Your task to perform on an android device: Open Chrome and go to the settings page Image 0: 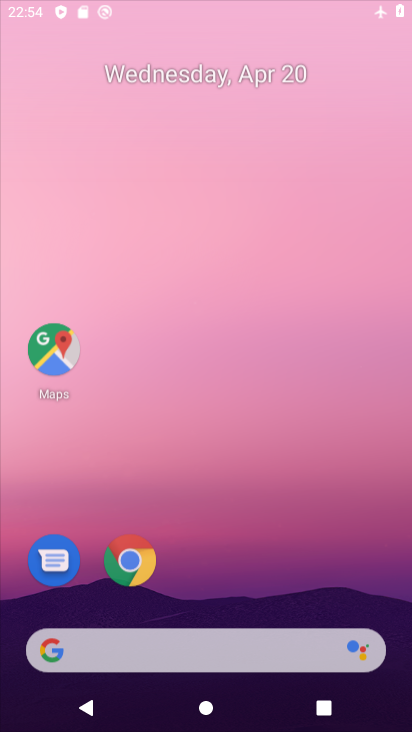
Step 0: click (238, 250)
Your task to perform on an android device: Open Chrome and go to the settings page Image 1: 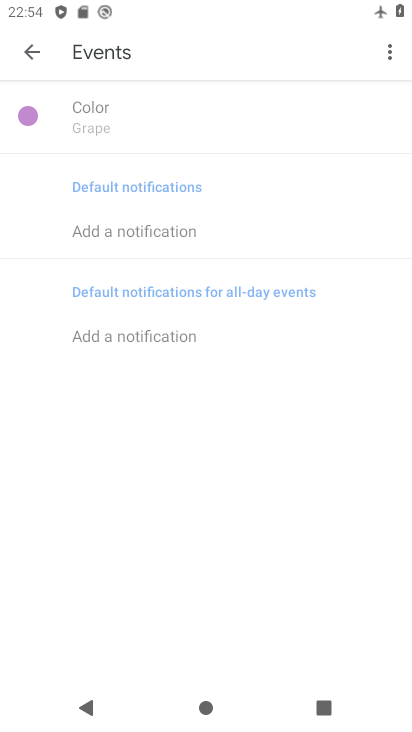
Step 1: drag from (235, 555) to (221, 240)
Your task to perform on an android device: Open Chrome and go to the settings page Image 2: 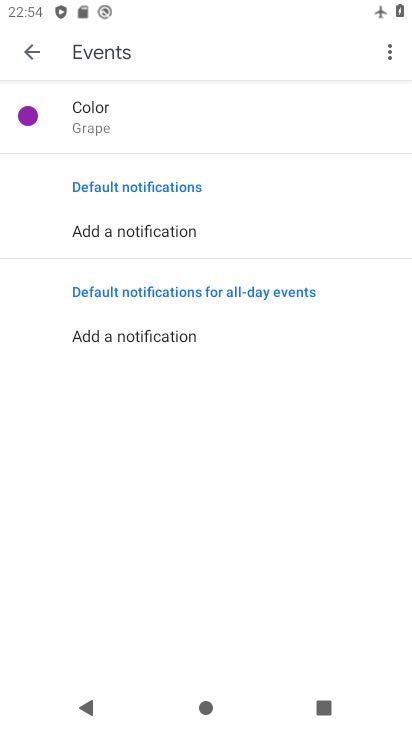
Step 2: press home button
Your task to perform on an android device: Open Chrome and go to the settings page Image 3: 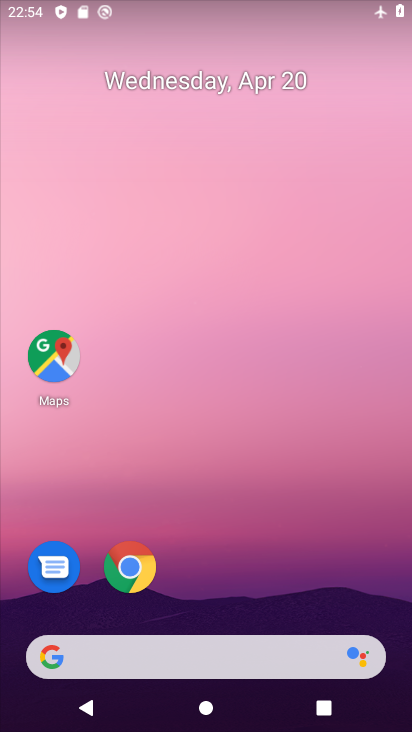
Step 3: drag from (247, 635) to (245, 288)
Your task to perform on an android device: Open Chrome and go to the settings page Image 4: 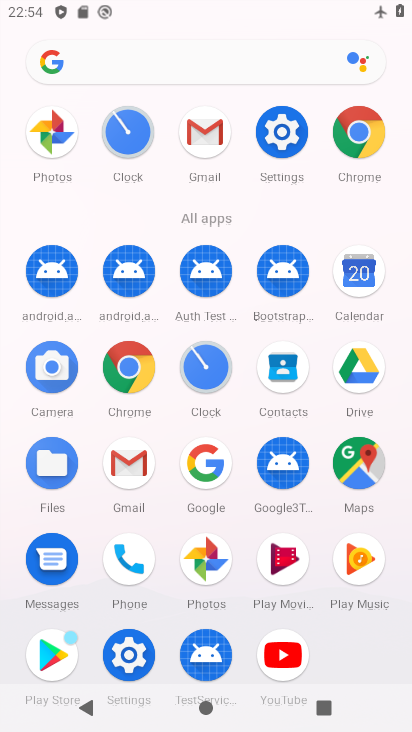
Step 4: click (363, 139)
Your task to perform on an android device: Open Chrome and go to the settings page Image 5: 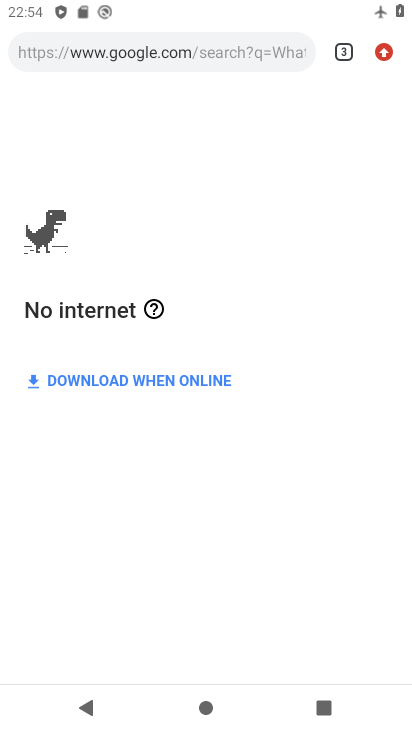
Step 5: click (381, 49)
Your task to perform on an android device: Open Chrome and go to the settings page Image 6: 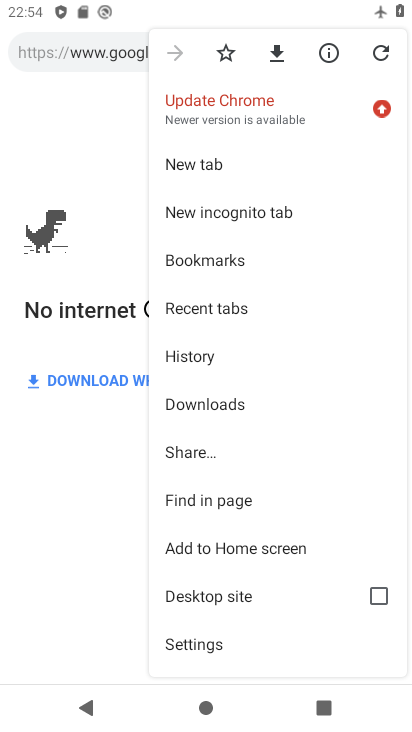
Step 6: click (222, 615)
Your task to perform on an android device: Open Chrome and go to the settings page Image 7: 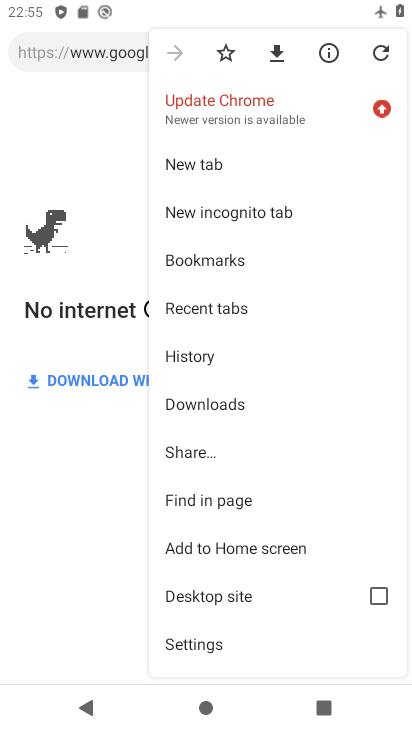
Step 7: click (220, 636)
Your task to perform on an android device: Open Chrome and go to the settings page Image 8: 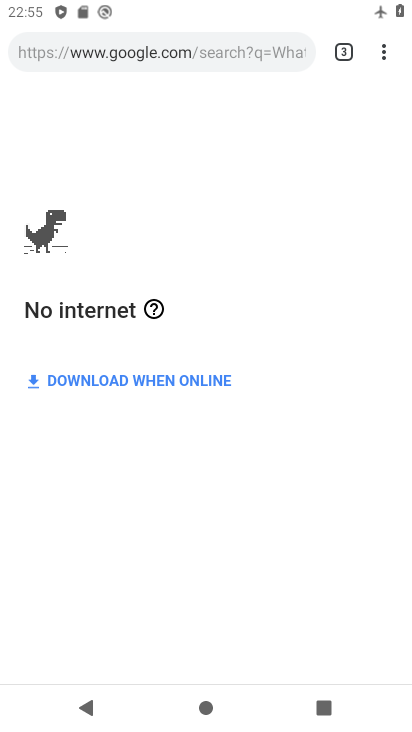
Step 8: click (220, 636)
Your task to perform on an android device: Open Chrome and go to the settings page Image 9: 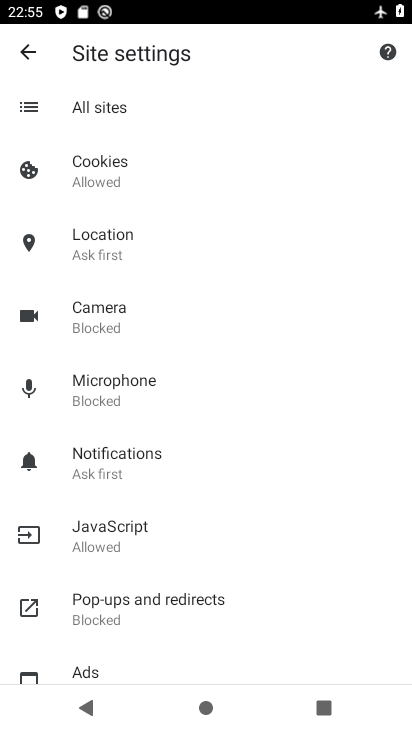
Step 9: task complete